Your task to perform on an android device: open wifi settings Image 0: 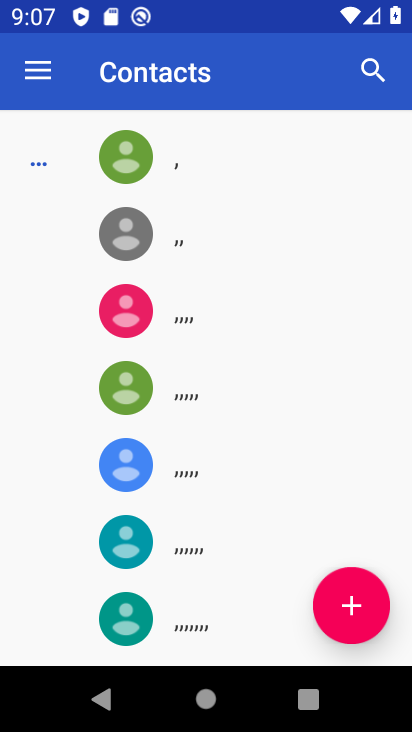
Step 0: press home button
Your task to perform on an android device: open wifi settings Image 1: 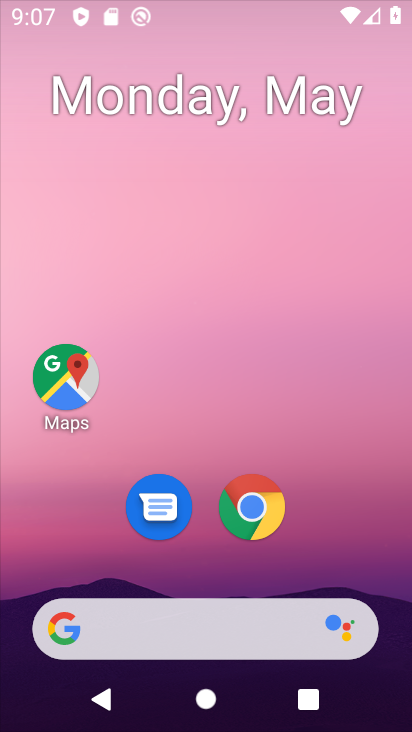
Step 1: drag from (161, 652) to (145, 31)
Your task to perform on an android device: open wifi settings Image 2: 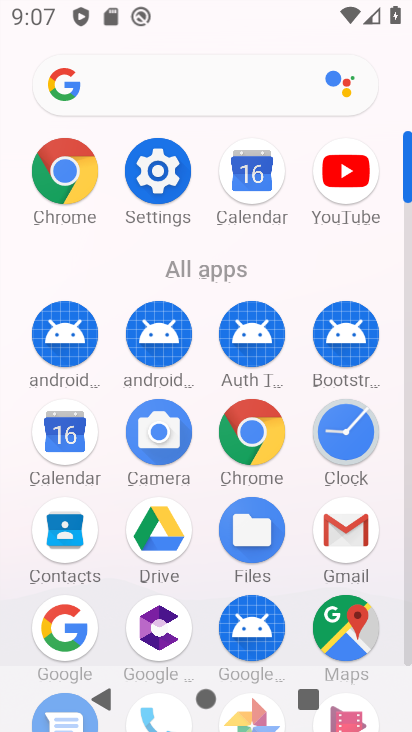
Step 2: click (142, 176)
Your task to perform on an android device: open wifi settings Image 3: 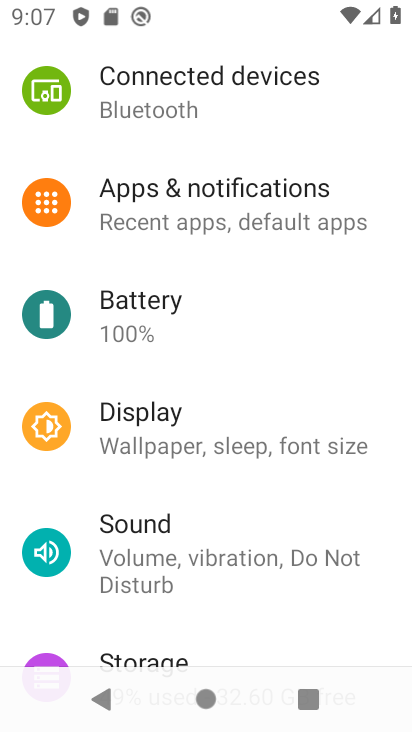
Step 3: drag from (161, 199) to (197, 583)
Your task to perform on an android device: open wifi settings Image 4: 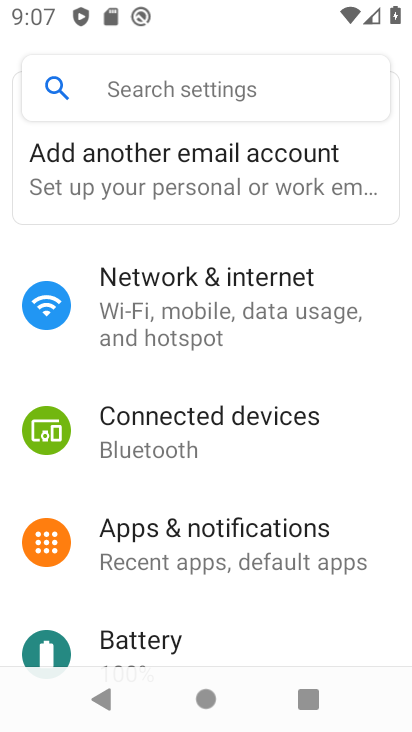
Step 4: click (169, 322)
Your task to perform on an android device: open wifi settings Image 5: 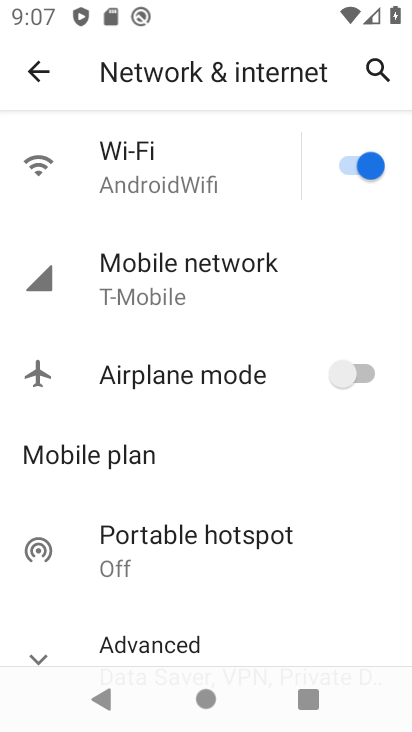
Step 5: click (200, 182)
Your task to perform on an android device: open wifi settings Image 6: 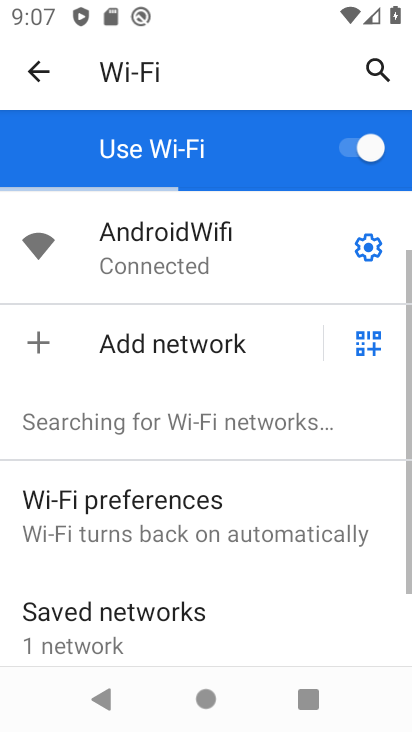
Step 6: task complete